Your task to perform on an android device: toggle airplane mode Image 0: 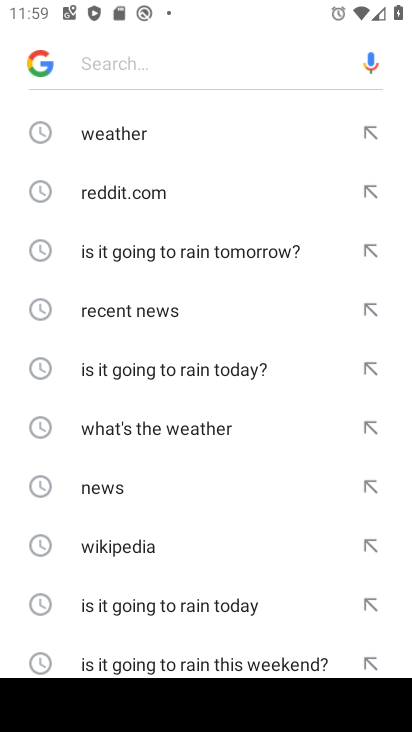
Step 0: press home button
Your task to perform on an android device: toggle airplane mode Image 1: 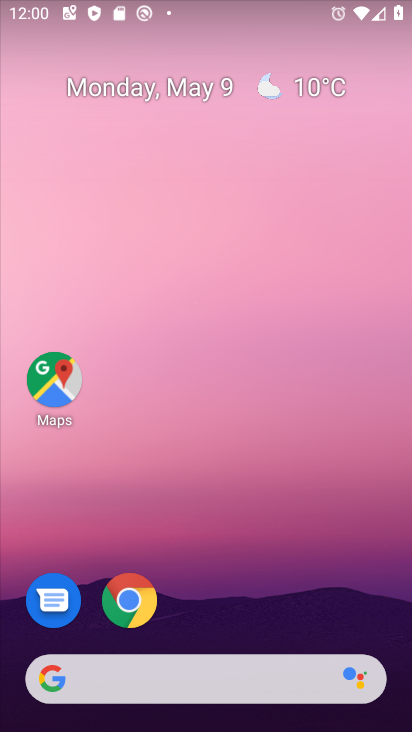
Step 1: drag from (187, 623) to (270, 106)
Your task to perform on an android device: toggle airplane mode Image 2: 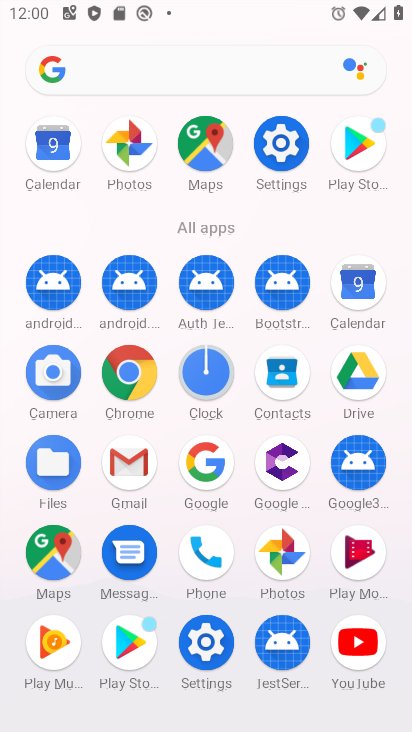
Step 2: click (285, 143)
Your task to perform on an android device: toggle airplane mode Image 3: 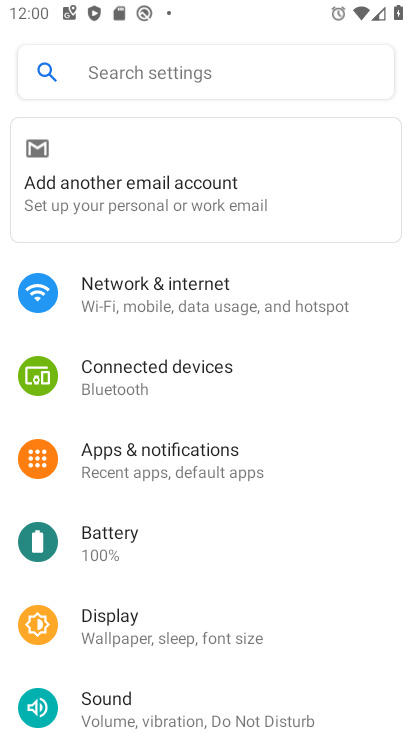
Step 3: click (184, 295)
Your task to perform on an android device: toggle airplane mode Image 4: 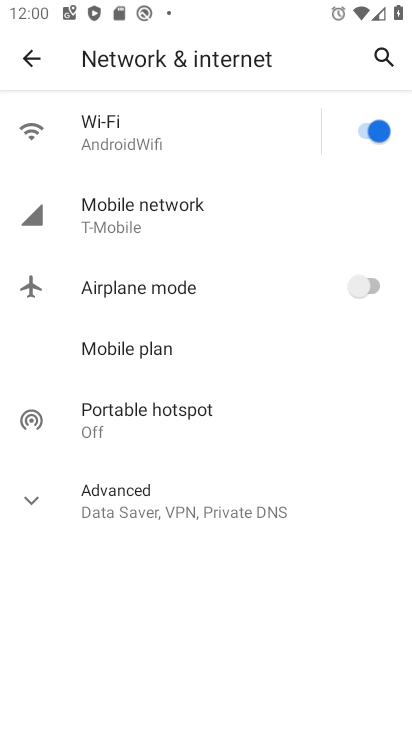
Step 4: click (359, 277)
Your task to perform on an android device: toggle airplane mode Image 5: 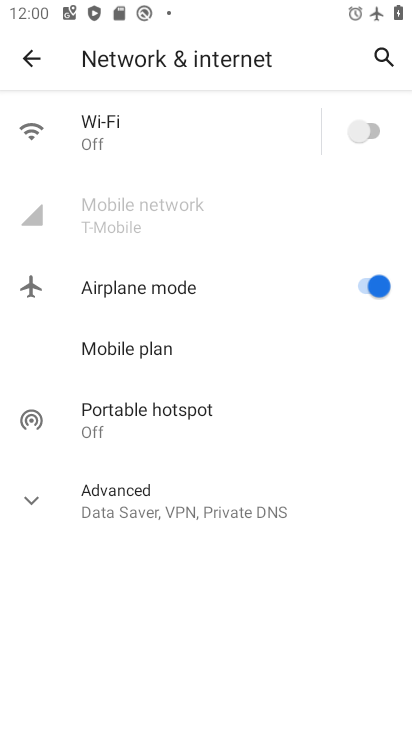
Step 5: task complete